Your task to perform on an android device: When is my next meeting? Image 0: 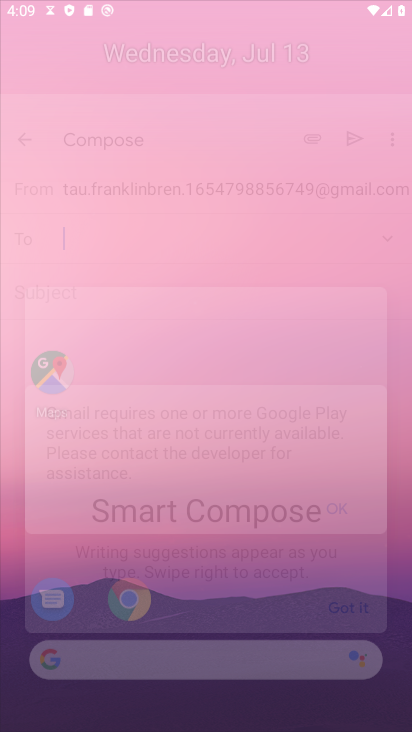
Step 0: press home button
Your task to perform on an android device: When is my next meeting? Image 1: 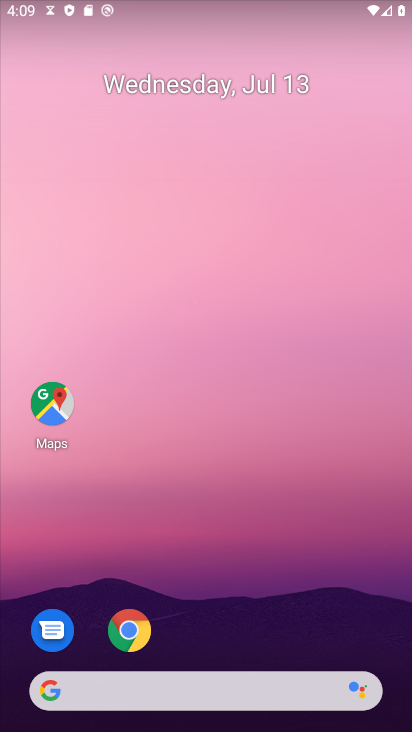
Step 1: drag from (259, 573) to (214, 168)
Your task to perform on an android device: When is my next meeting? Image 2: 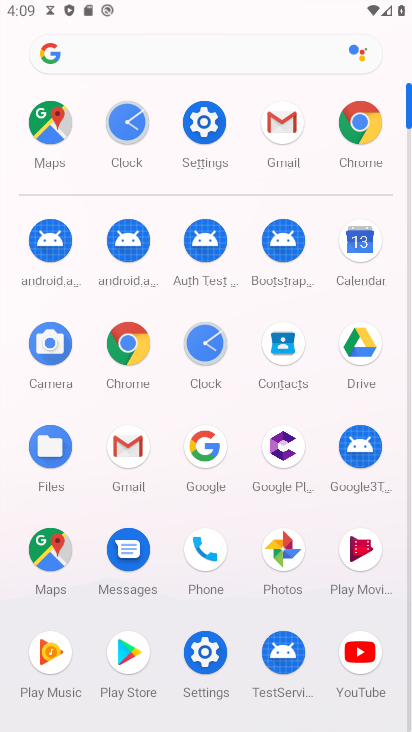
Step 2: click (357, 253)
Your task to perform on an android device: When is my next meeting? Image 3: 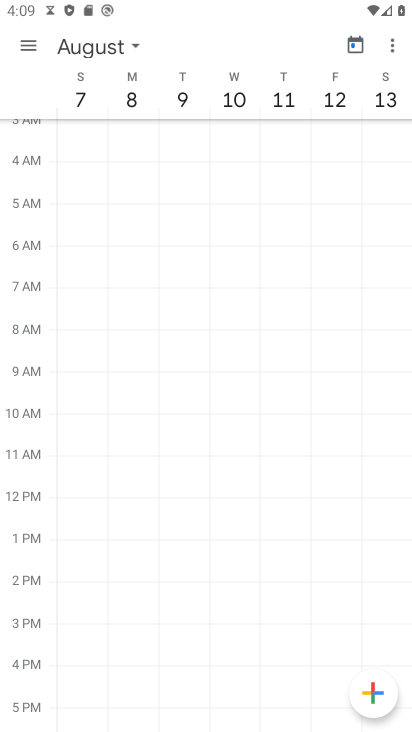
Step 3: click (26, 52)
Your task to perform on an android device: When is my next meeting? Image 4: 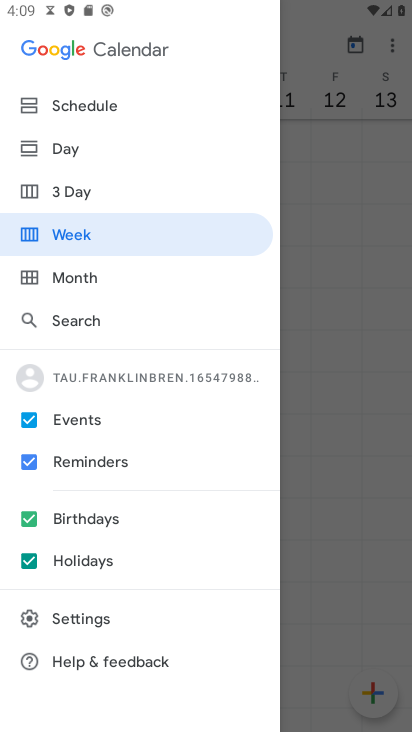
Step 4: click (84, 110)
Your task to perform on an android device: When is my next meeting? Image 5: 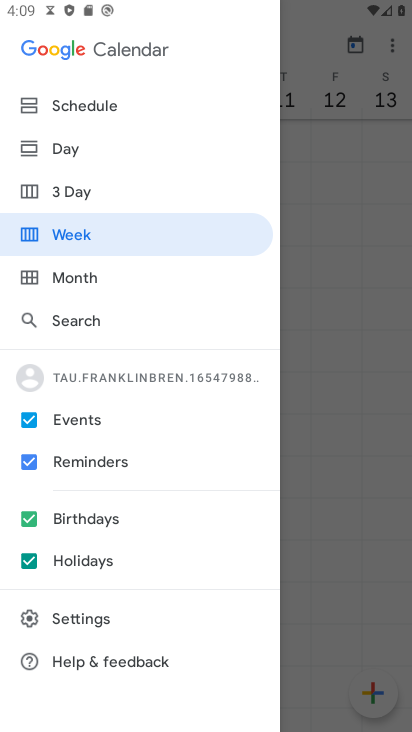
Step 5: click (380, 180)
Your task to perform on an android device: When is my next meeting? Image 6: 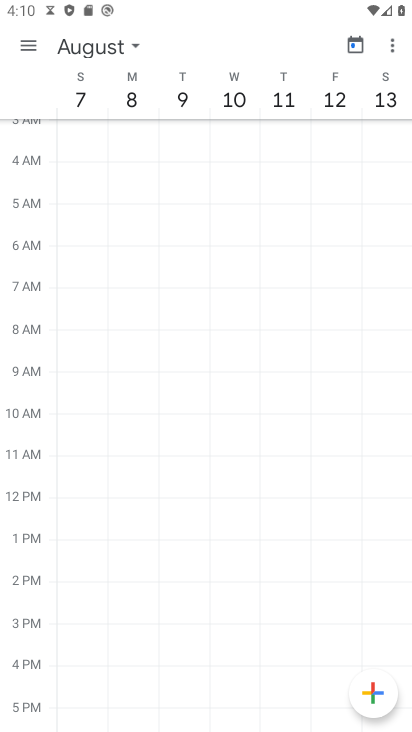
Step 6: task complete